Your task to perform on an android device: turn pop-ups on in chrome Image 0: 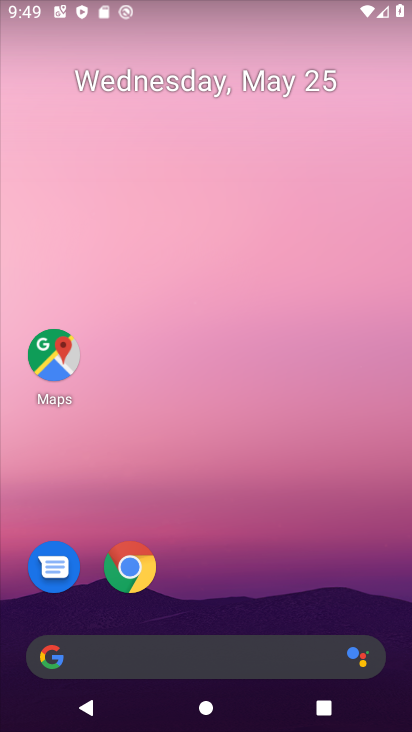
Step 0: click (123, 591)
Your task to perform on an android device: turn pop-ups on in chrome Image 1: 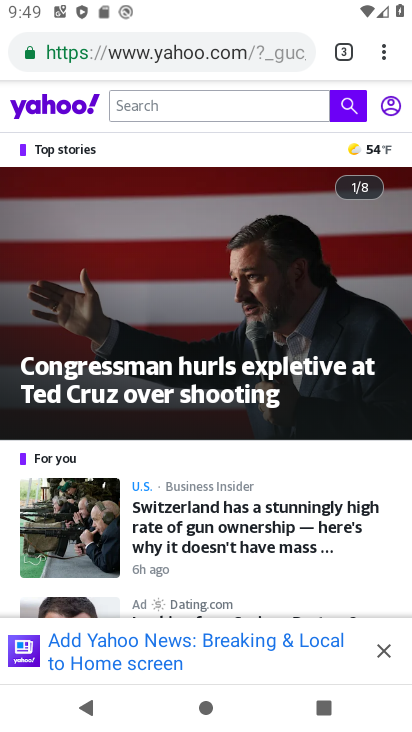
Step 1: click (387, 38)
Your task to perform on an android device: turn pop-ups on in chrome Image 2: 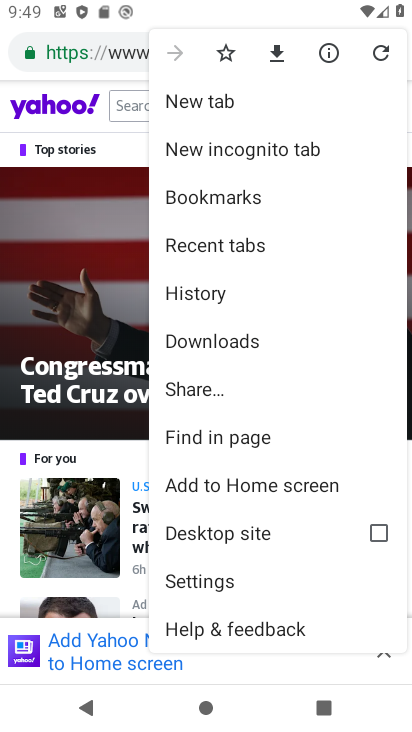
Step 2: click (185, 564)
Your task to perform on an android device: turn pop-ups on in chrome Image 3: 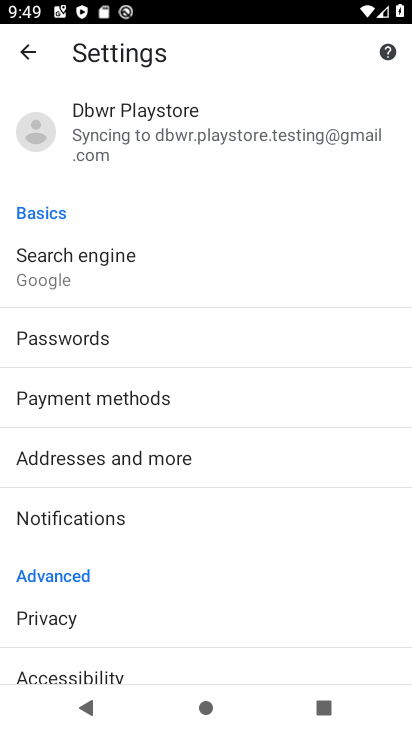
Step 3: drag from (128, 603) to (144, 276)
Your task to perform on an android device: turn pop-ups on in chrome Image 4: 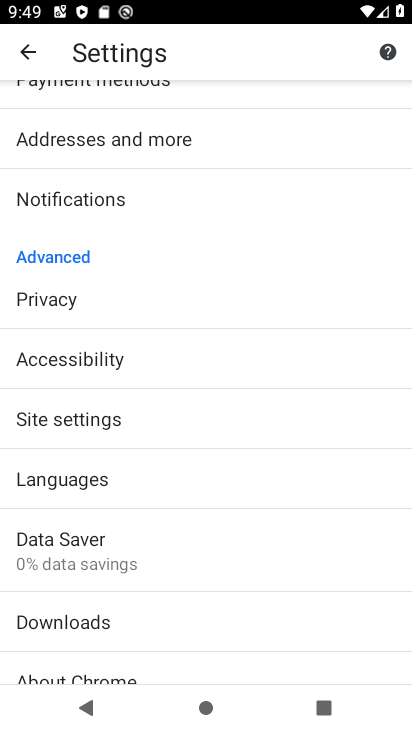
Step 4: click (159, 476)
Your task to perform on an android device: turn pop-ups on in chrome Image 5: 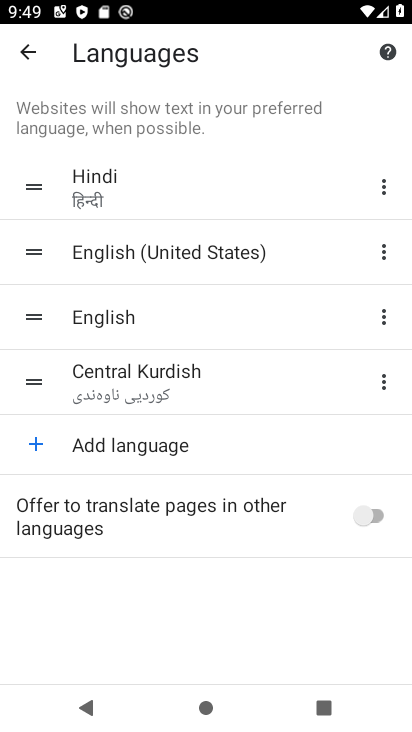
Step 5: task complete